Your task to perform on an android device: Open the web browser Image 0: 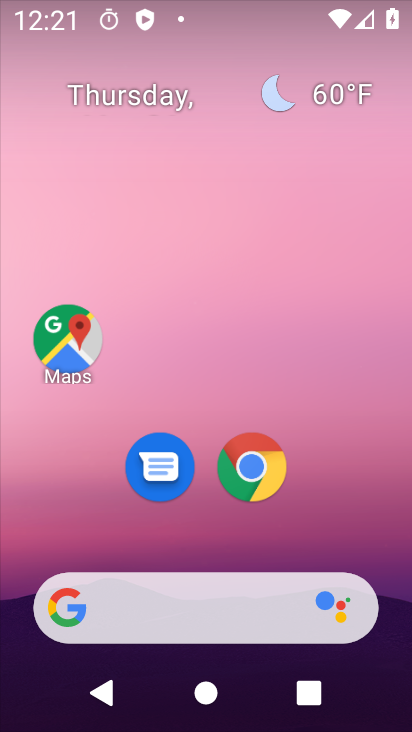
Step 0: click (253, 457)
Your task to perform on an android device: Open the web browser Image 1: 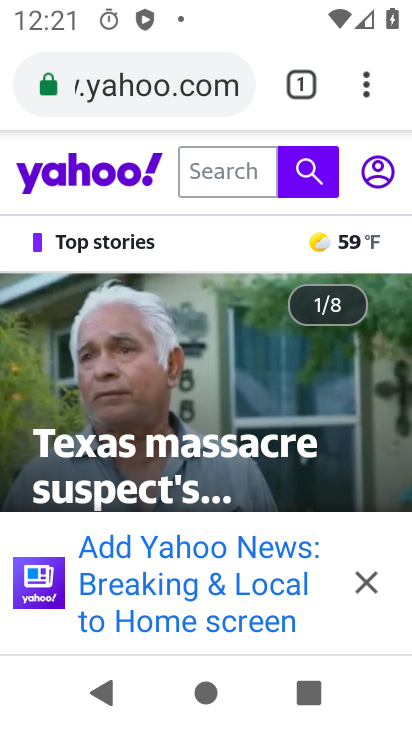
Step 1: task complete